Your task to perform on an android device: Open Google Chrome and open the bookmarks view Image 0: 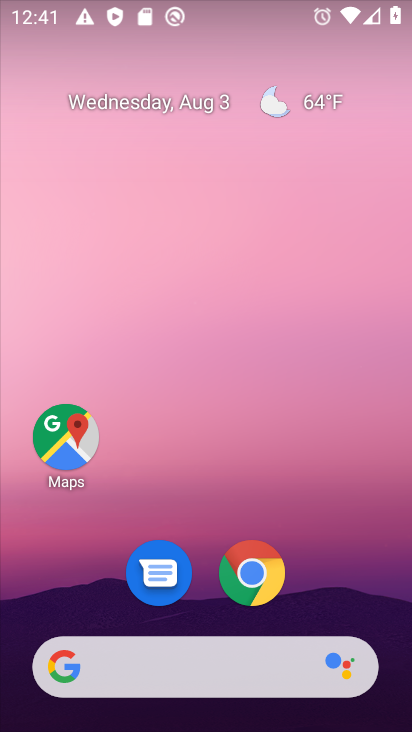
Step 0: drag from (164, 642) to (232, 150)
Your task to perform on an android device: Open Google Chrome and open the bookmarks view Image 1: 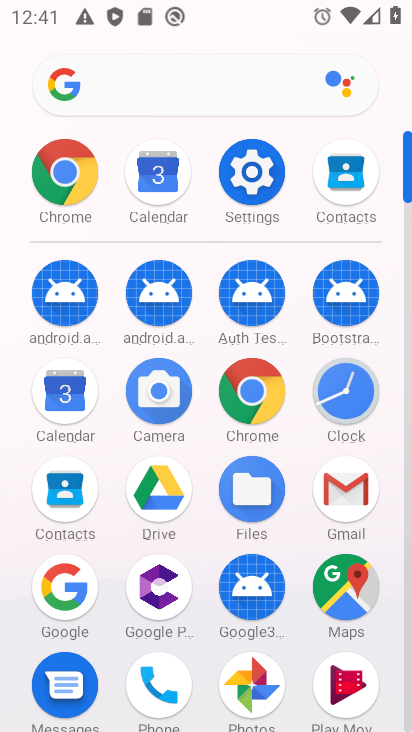
Step 1: click (259, 400)
Your task to perform on an android device: Open Google Chrome and open the bookmarks view Image 2: 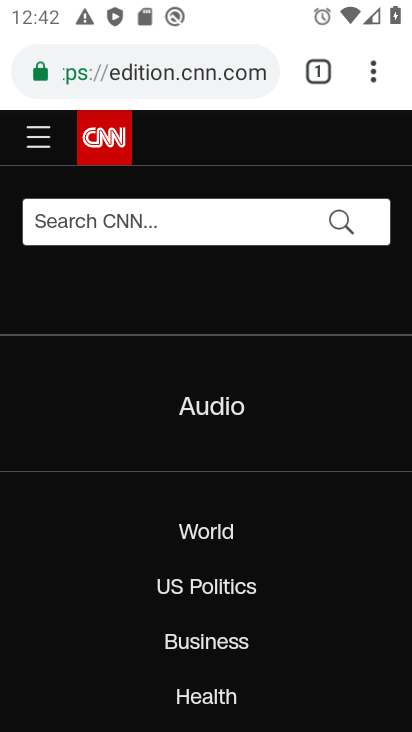
Step 2: click (384, 79)
Your task to perform on an android device: Open Google Chrome and open the bookmarks view Image 3: 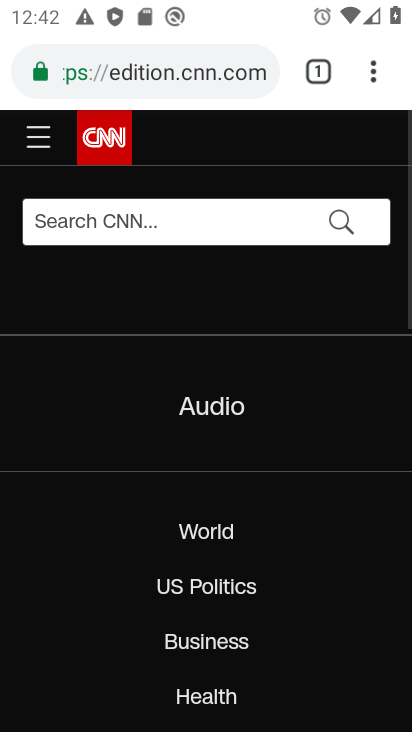
Step 3: click (384, 79)
Your task to perform on an android device: Open Google Chrome and open the bookmarks view Image 4: 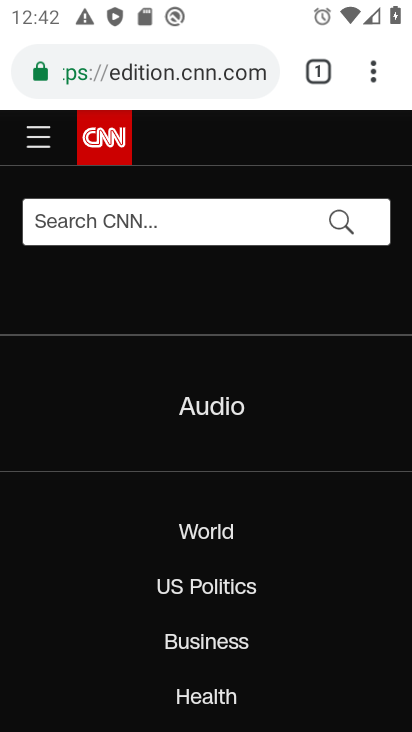
Step 4: click (375, 75)
Your task to perform on an android device: Open Google Chrome and open the bookmarks view Image 5: 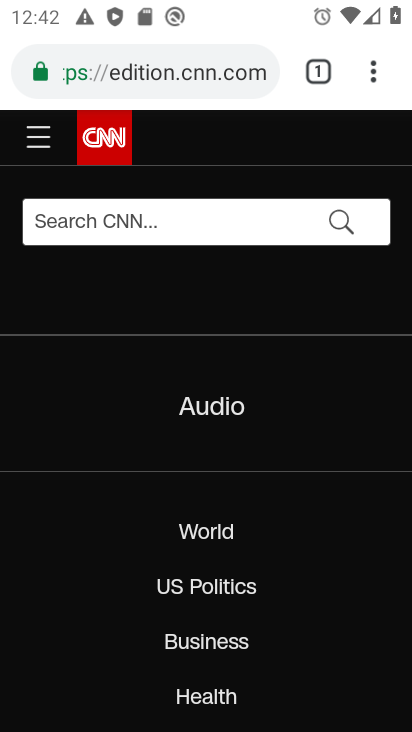
Step 5: click (384, 75)
Your task to perform on an android device: Open Google Chrome and open the bookmarks view Image 6: 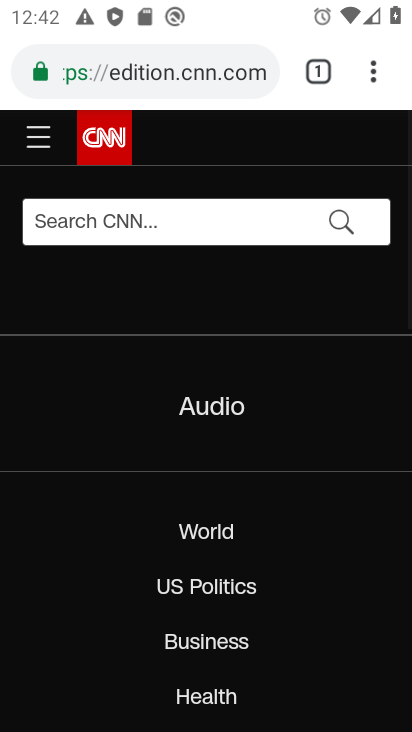
Step 6: click (387, 75)
Your task to perform on an android device: Open Google Chrome and open the bookmarks view Image 7: 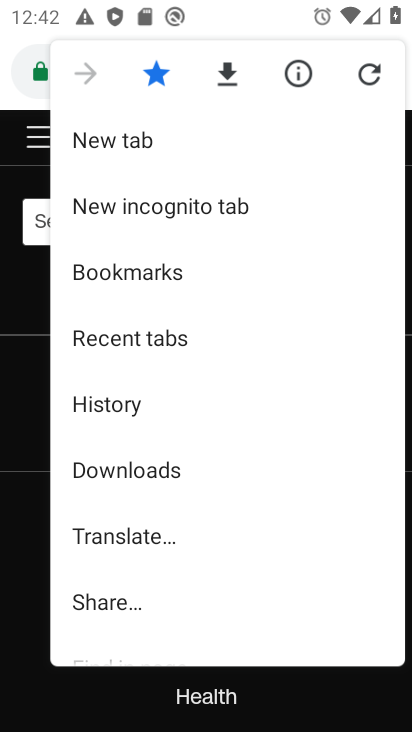
Step 7: drag from (196, 499) to (299, 148)
Your task to perform on an android device: Open Google Chrome and open the bookmarks view Image 8: 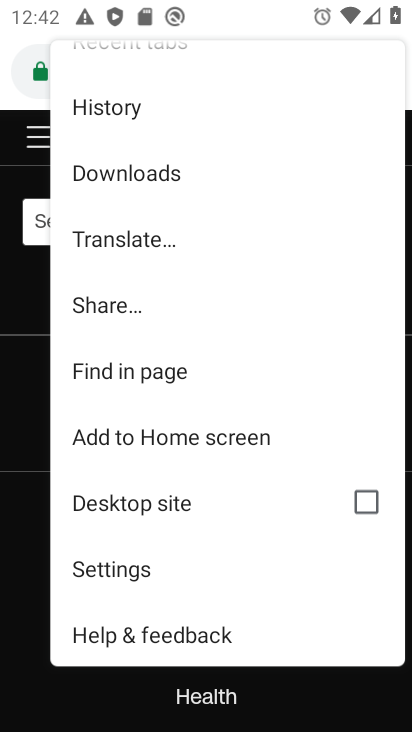
Step 8: drag from (183, 574) to (248, 244)
Your task to perform on an android device: Open Google Chrome and open the bookmarks view Image 9: 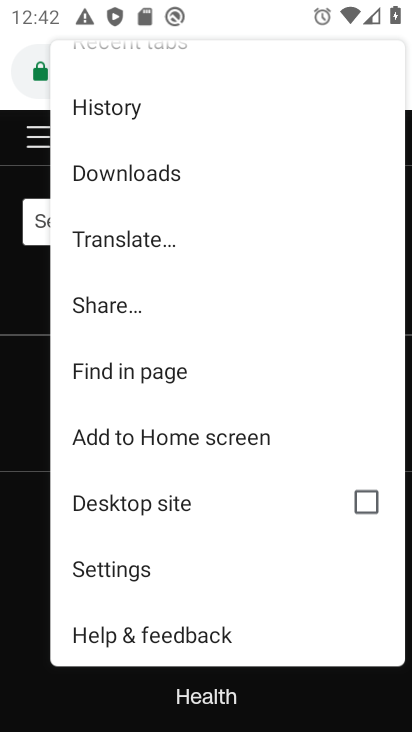
Step 9: drag from (194, 209) to (165, 620)
Your task to perform on an android device: Open Google Chrome and open the bookmarks view Image 10: 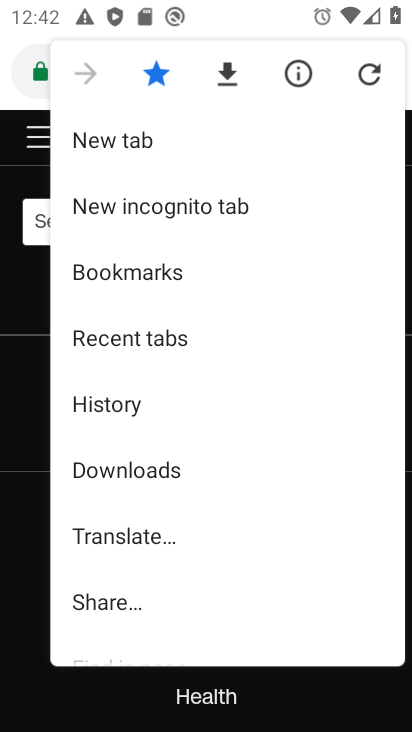
Step 10: click (152, 283)
Your task to perform on an android device: Open Google Chrome and open the bookmarks view Image 11: 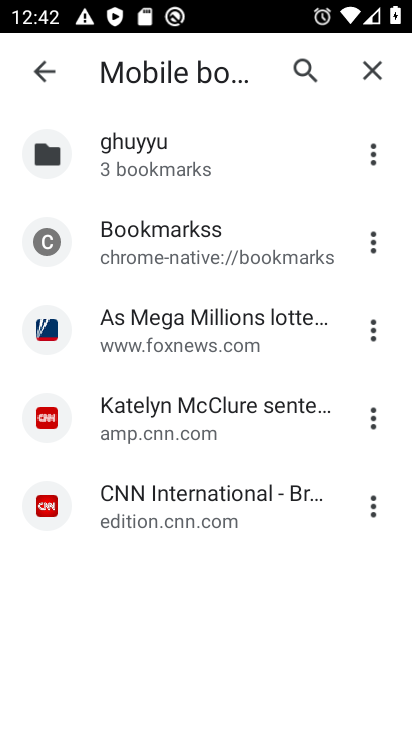
Step 11: task complete